Your task to perform on an android device: View the shopping cart on target. Add "usb-c to usb-b" to the cart on target Image 0: 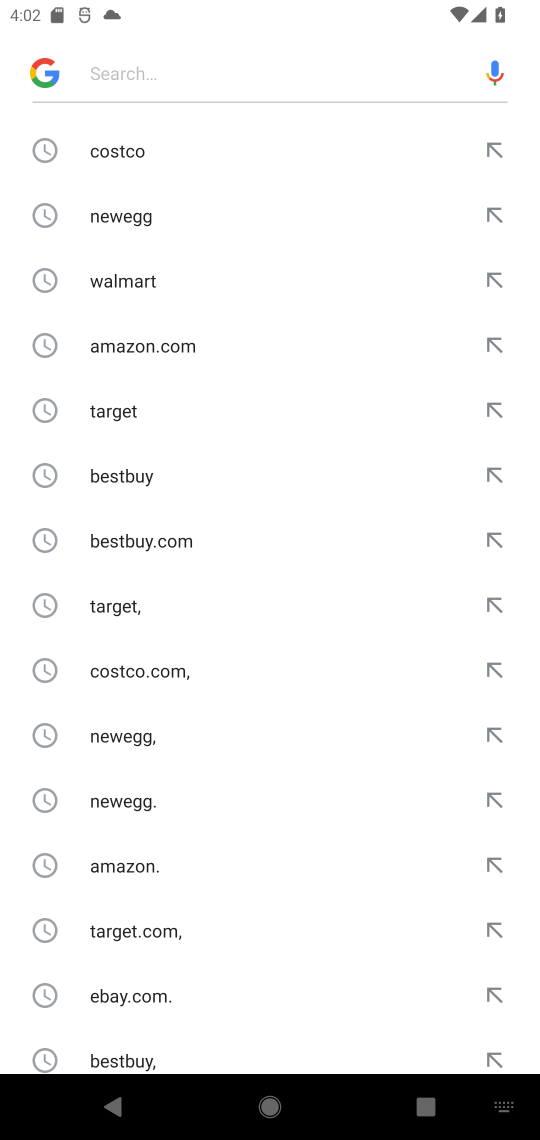
Step 0: press home button
Your task to perform on an android device: View the shopping cart on target. Add "usb-c to usb-b" to the cart on target Image 1: 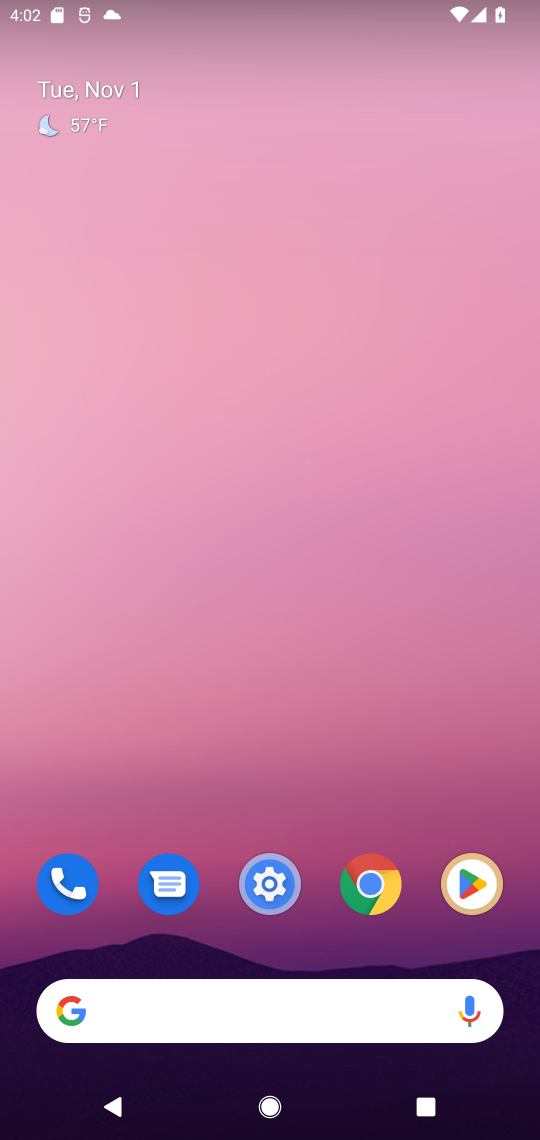
Step 1: click (99, 1007)
Your task to perform on an android device: View the shopping cart on target. Add "usb-c to usb-b" to the cart on target Image 2: 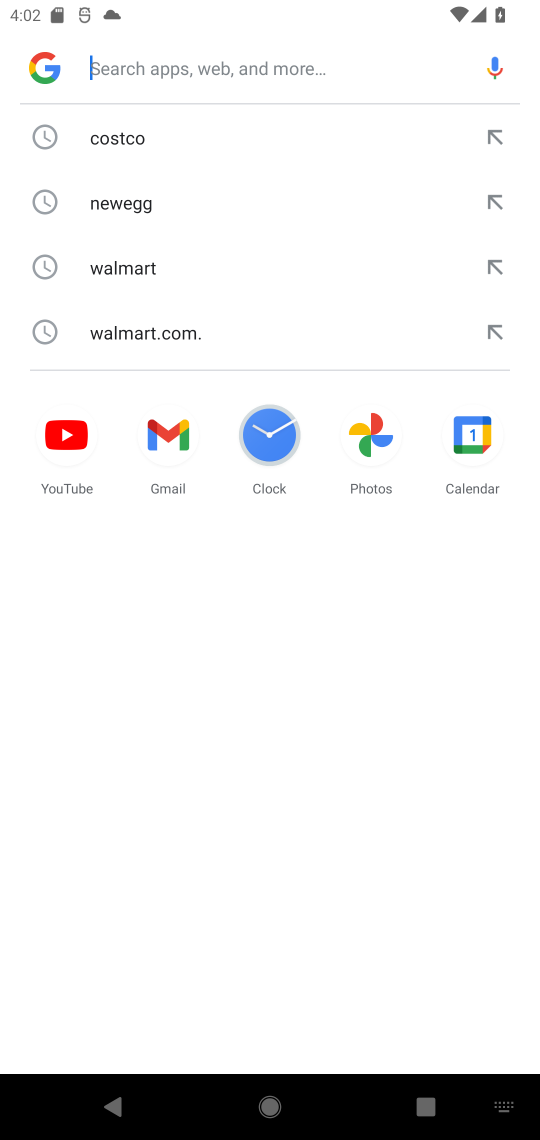
Step 2: type " target"
Your task to perform on an android device: View the shopping cart on target. Add "usb-c to usb-b" to the cart on target Image 3: 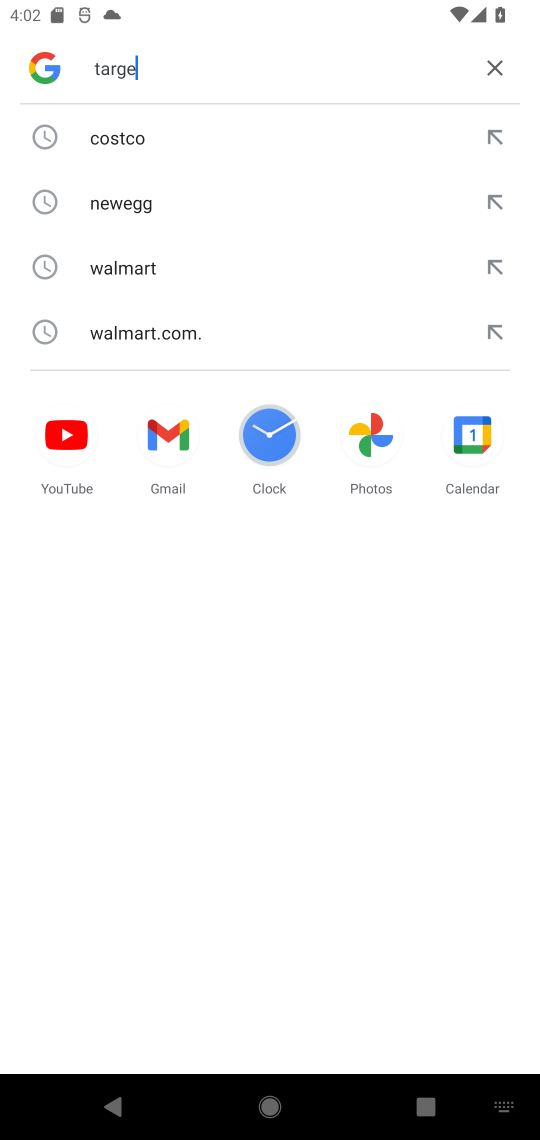
Step 3: press enter
Your task to perform on an android device: View the shopping cart on target. Add "usb-c to usb-b" to the cart on target Image 4: 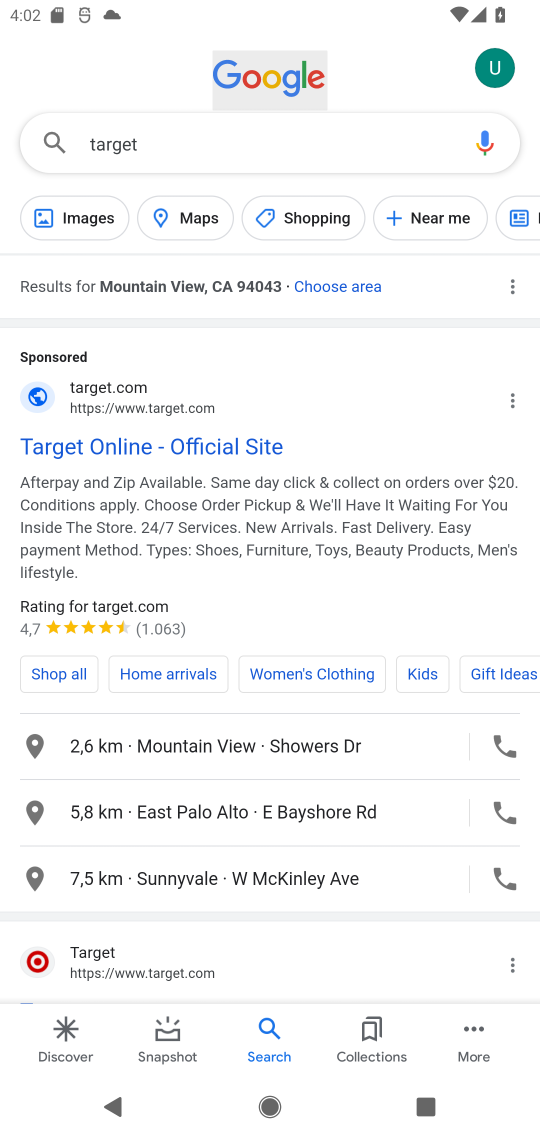
Step 4: click (101, 449)
Your task to perform on an android device: View the shopping cart on target. Add "usb-c to usb-b" to the cart on target Image 5: 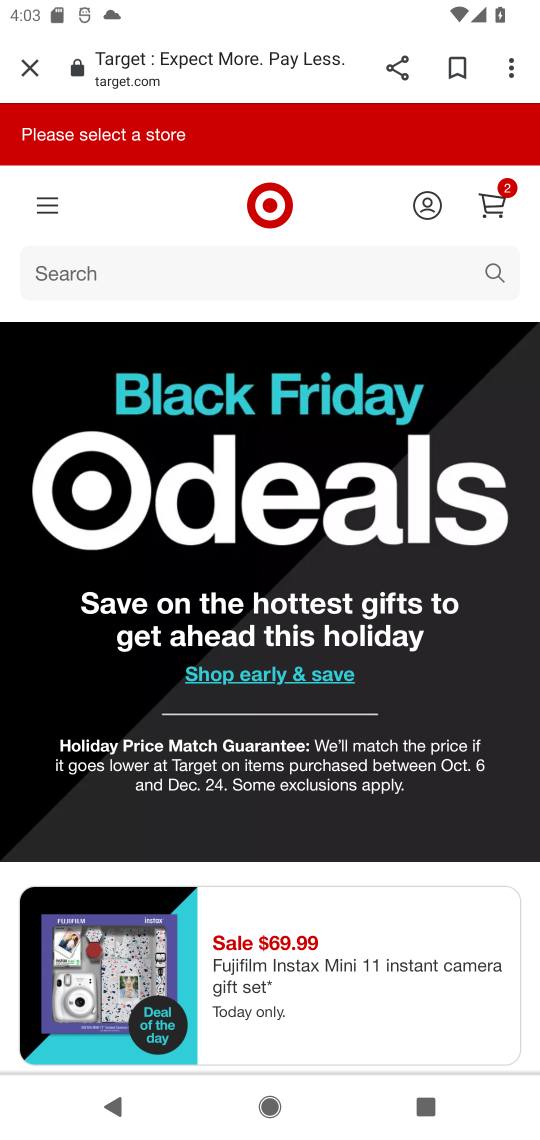
Step 5: click (53, 270)
Your task to perform on an android device: View the shopping cart on target. Add "usb-c to usb-b" to the cart on target Image 6: 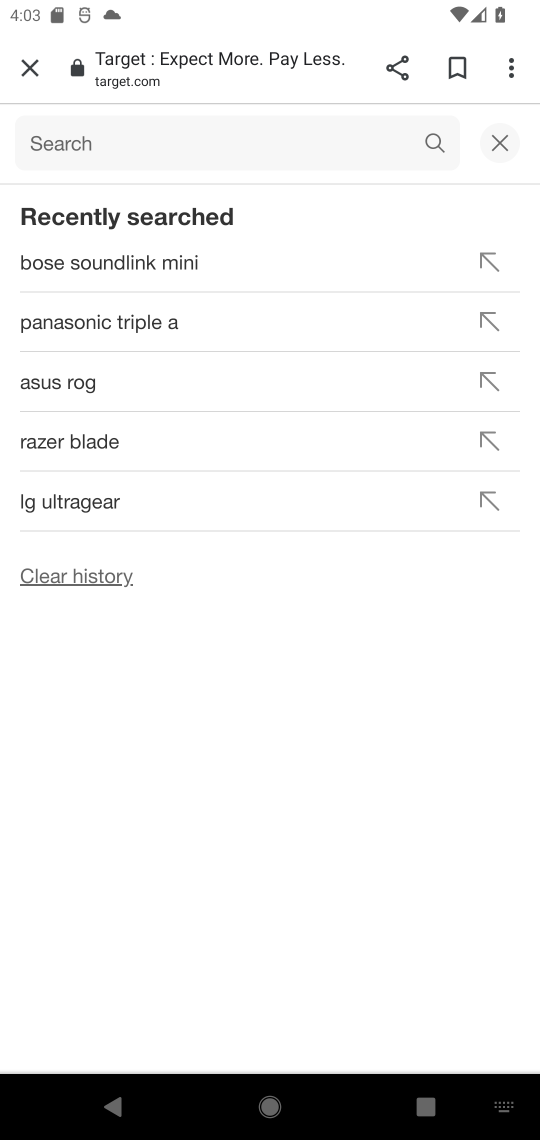
Step 6: type "usb-c to usb-b"
Your task to perform on an android device: View the shopping cart on target. Add "usb-c to usb-b" to the cart on target Image 7: 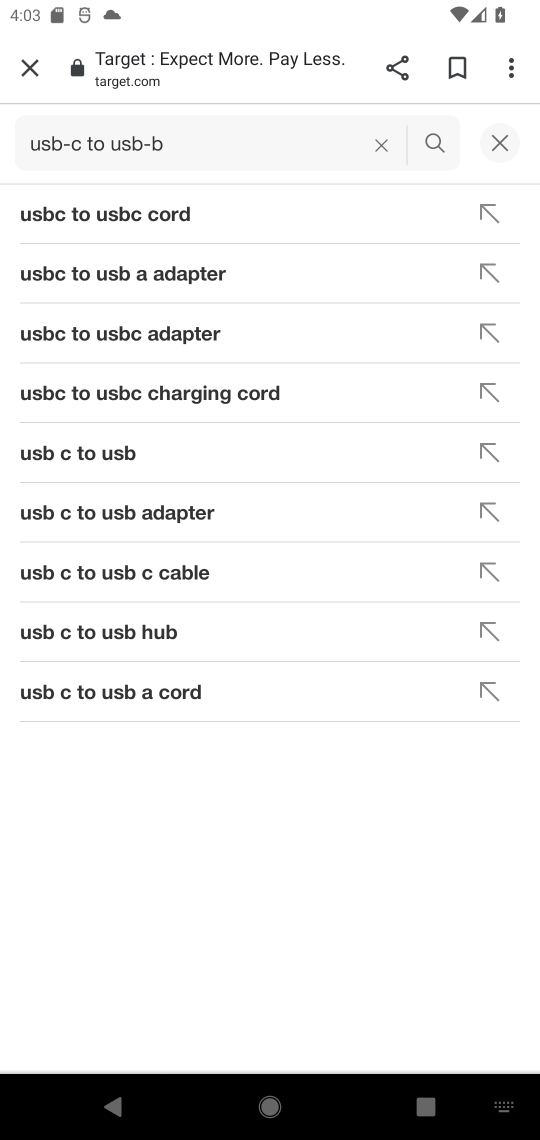
Step 7: click (435, 143)
Your task to perform on an android device: View the shopping cart on target. Add "usb-c to usb-b" to the cart on target Image 8: 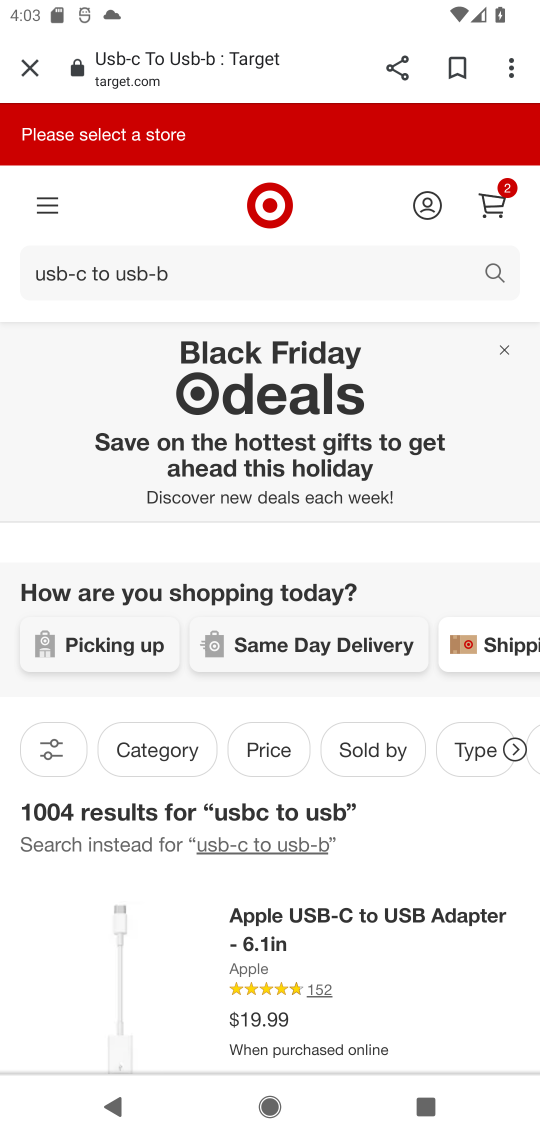
Step 8: task complete